Your task to perform on an android device: refresh tabs in the chrome app Image 0: 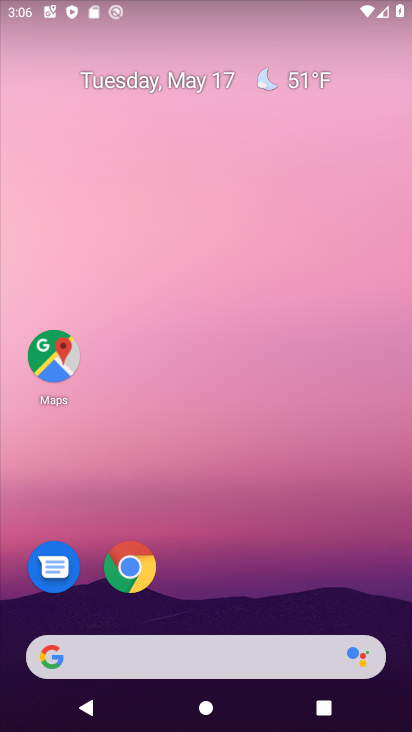
Step 0: click (129, 561)
Your task to perform on an android device: refresh tabs in the chrome app Image 1: 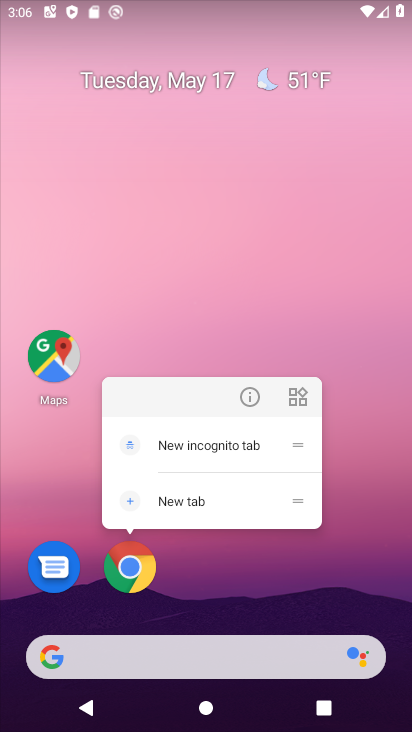
Step 1: click (145, 549)
Your task to perform on an android device: refresh tabs in the chrome app Image 2: 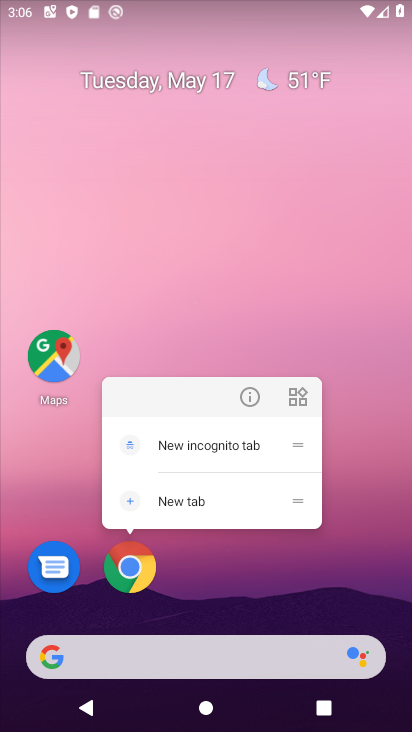
Step 2: click (142, 549)
Your task to perform on an android device: refresh tabs in the chrome app Image 3: 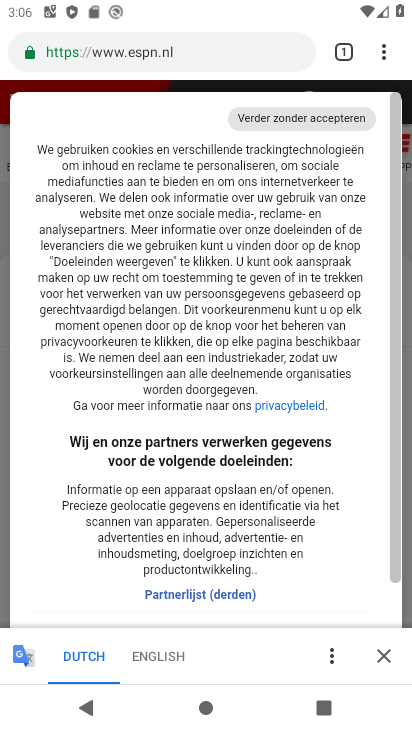
Step 3: click (385, 56)
Your task to perform on an android device: refresh tabs in the chrome app Image 4: 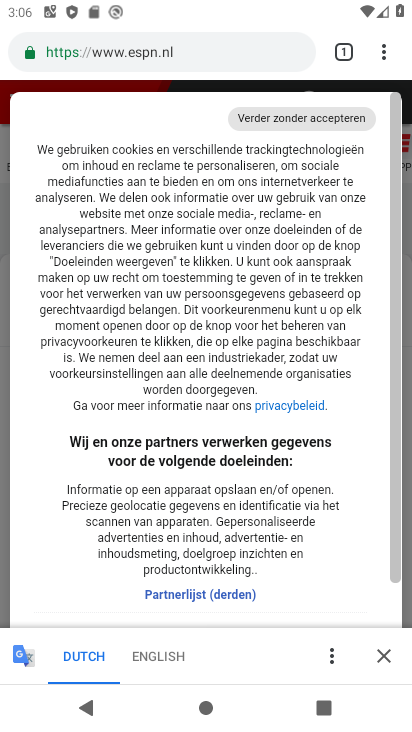
Step 4: task complete